Your task to perform on an android device: What's on my calendar tomorrow? Image 0: 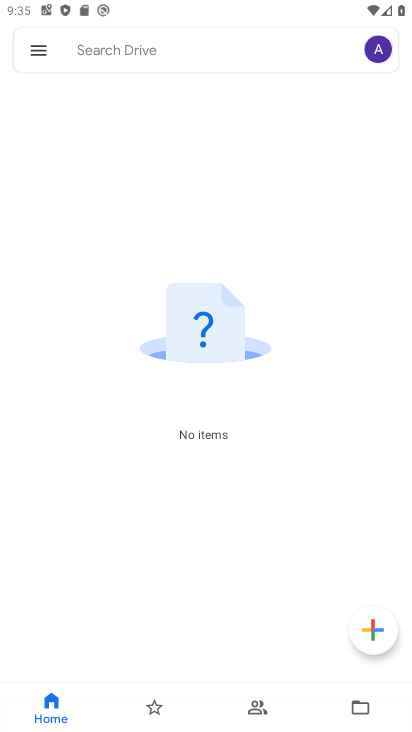
Step 0: press home button
Your task to perform on an android device: What's on my calendar tomorrow? Image 1: 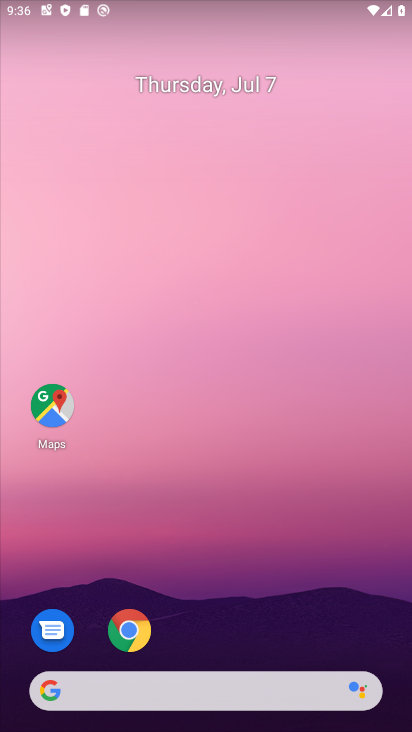
Step 1: drag from (203, 620) to (203, 168)
Your task to perform on an android device: What's on my calendar tomorrow? Image 2: 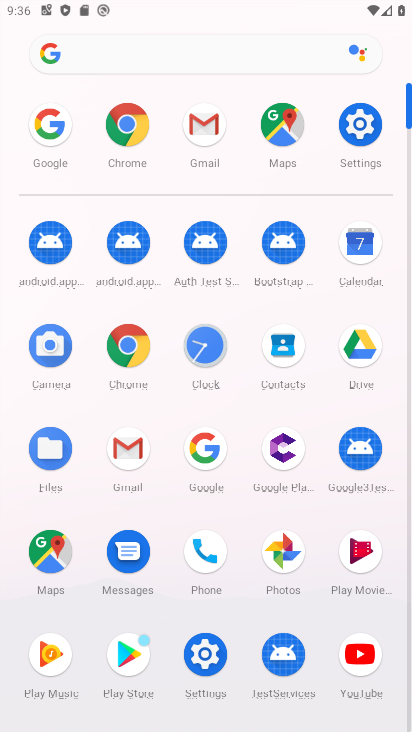
Step 2: click (359, 266)
Your task to perform on an android device: What's on my calendar tomorrow? Image 3: 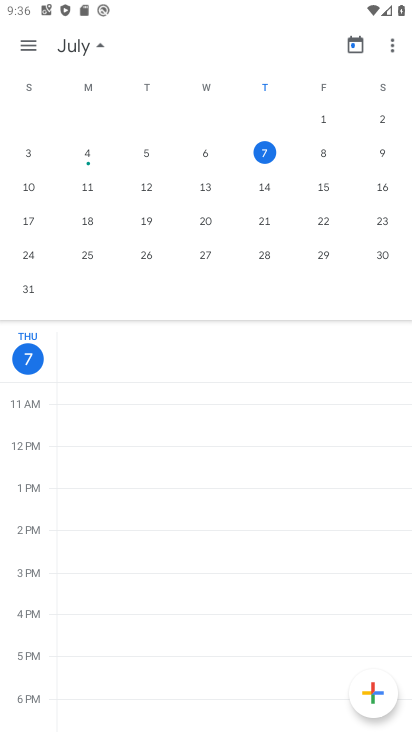
Step 3: click (309, 152)
Your task to perform on an android device: What's on my calendar tomorrow? Image 4: 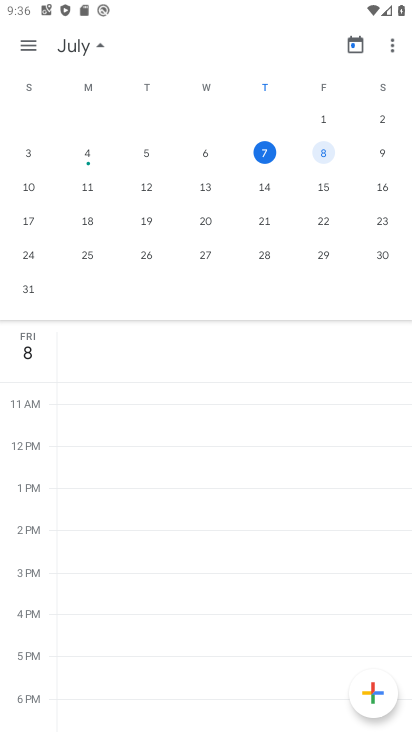
Step 4: task complete